Your task to perform on an android device: Clear all items from cart on target. Search for razer blade on target, select the first entry, add it to the cart, then select checkout. Image 0: 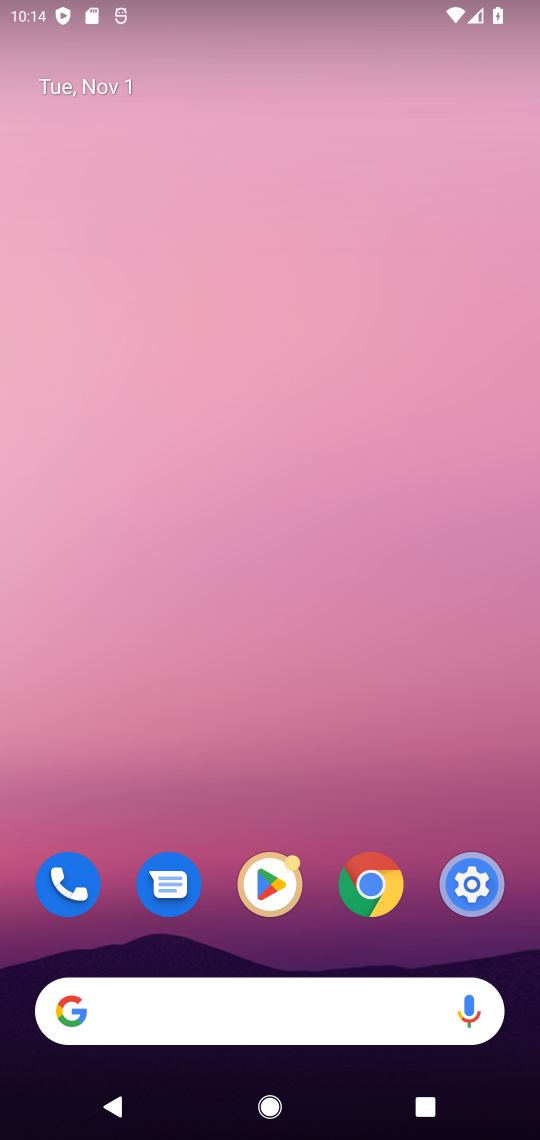
Step 0: click (371, 883)
Your task to perform on an android device: Clear all items from cart on target. Search for razer blade on target, select the first entry, add it to the cart, then select checkout. Image 1: 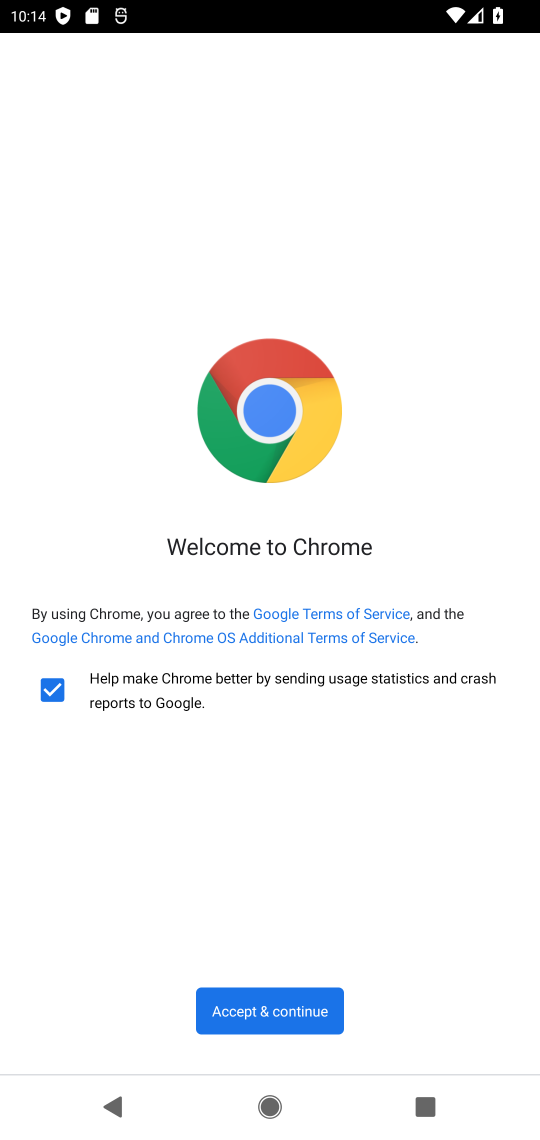
Step 1: click (244, 1006)
Your task to perform on an android device: Clear all items from cart on target. Search for razer blade on target, select the first entry, add it to the cart, then select checkout. Image 2: 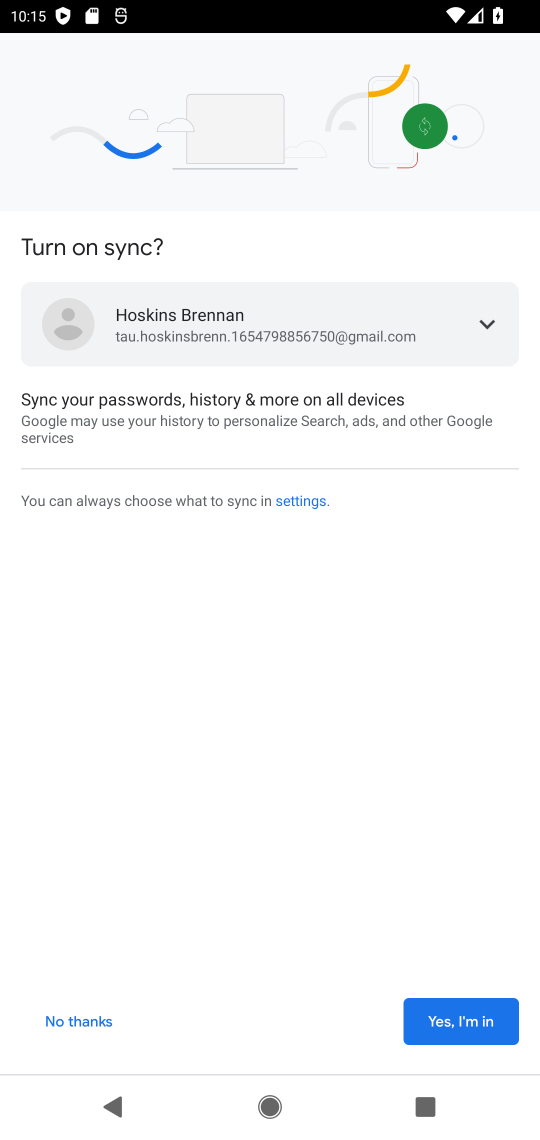
Step 2: click (425, 1028)
Your task to perform on an android device: Clear all items from cart on target. Search for razer blade on target, select the first entry, add it to the cart, then select checkout. Image 3: 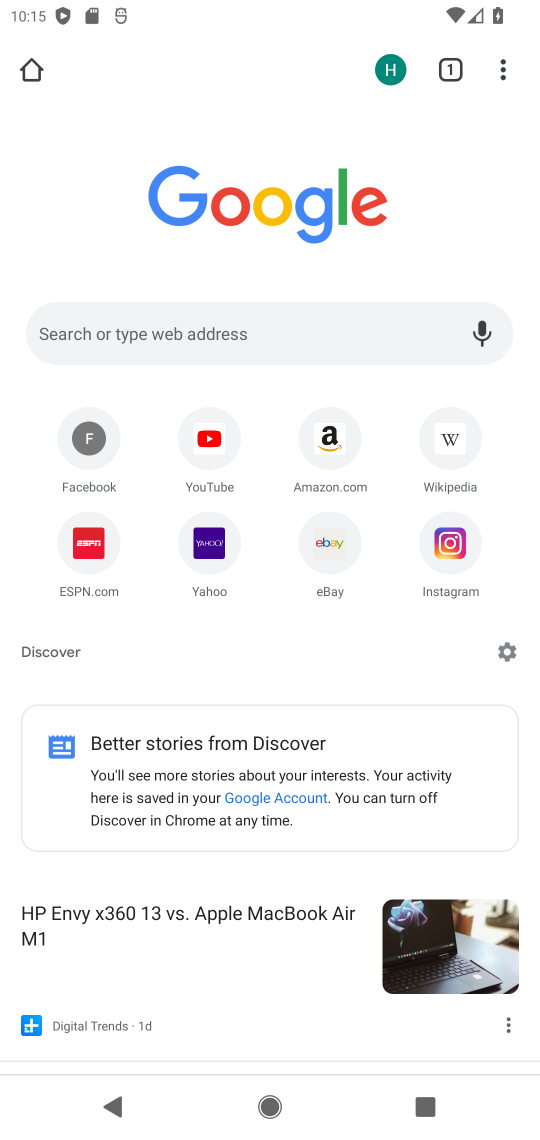
Step 3: click (163, 324)
Your task to perform on an android device: Clear all items from cart on target. Search for razer blade on target, select the first entry, add it to the cart, then select checkout. Image 4: 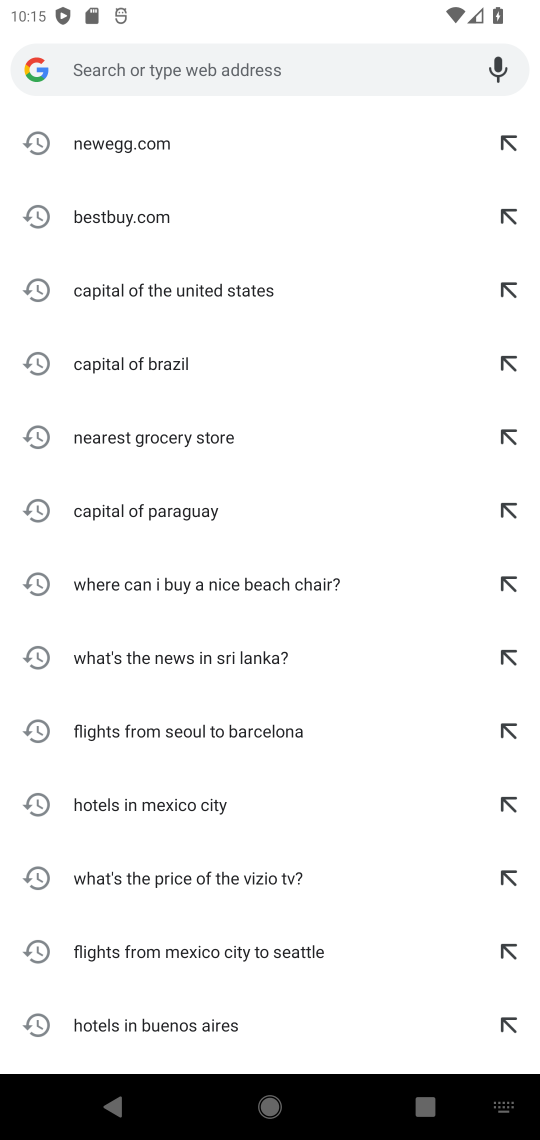
Step 4: type "target.com"
Your task to perform on an android device: Clear all items from cart on target. Search for razer blade on target, select the first entry, add it to the cart, then select checkout. Image 5: 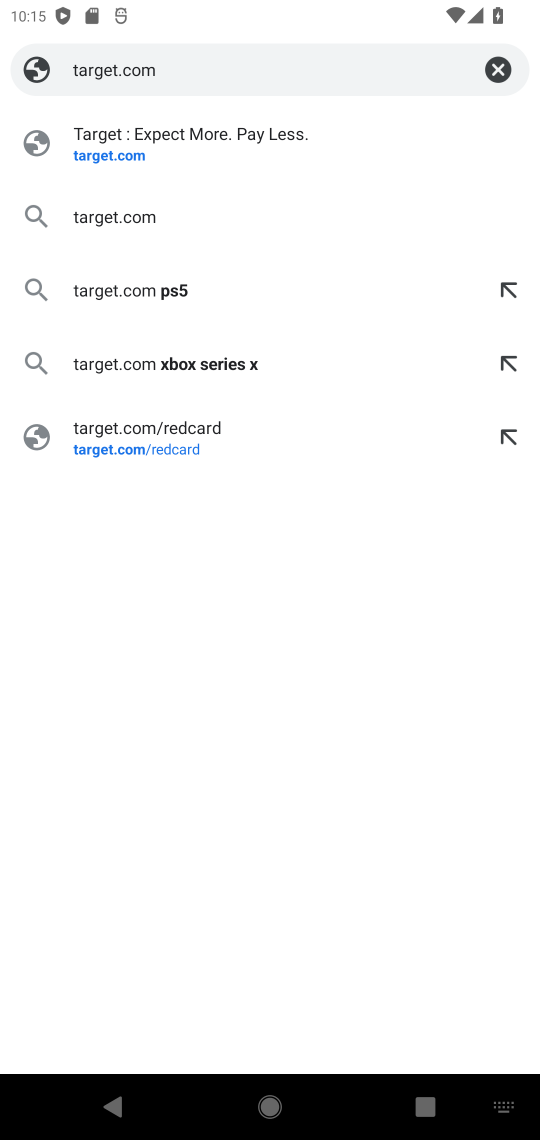
Step 5: click (86, 156)
Your task to perform on an android device: Clear all items from cart on target. Search for razer blade on target, select the first entry, add it to the cart, then select checkout. Image 6: 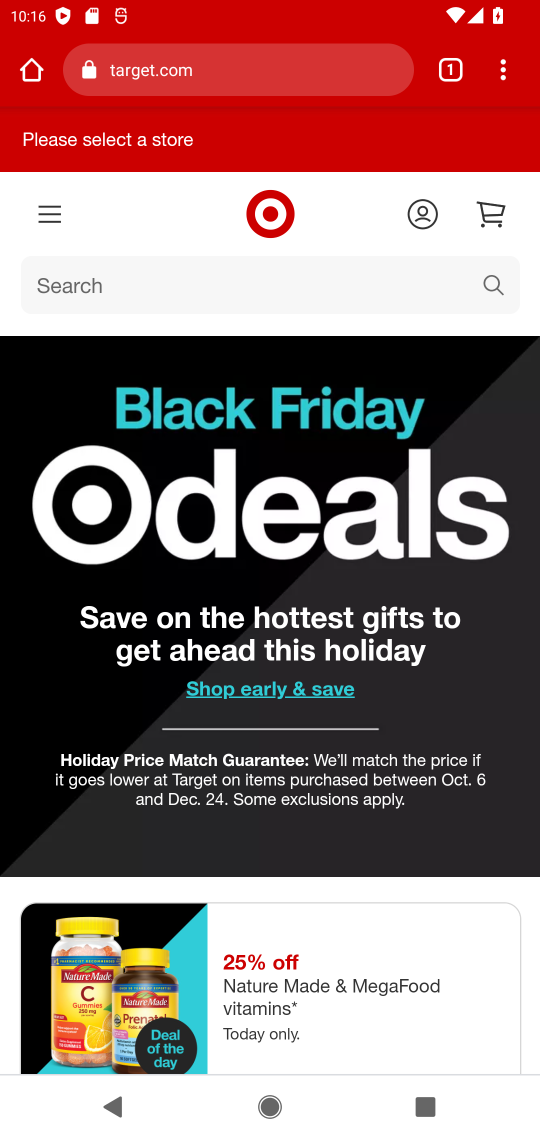
Step 6: click (488, 287)
Your task to perform on an android device: Clear all items from cart on target. Search for razer blade on target, select the first entry, add it to the cart, then select checkout. Image 7: 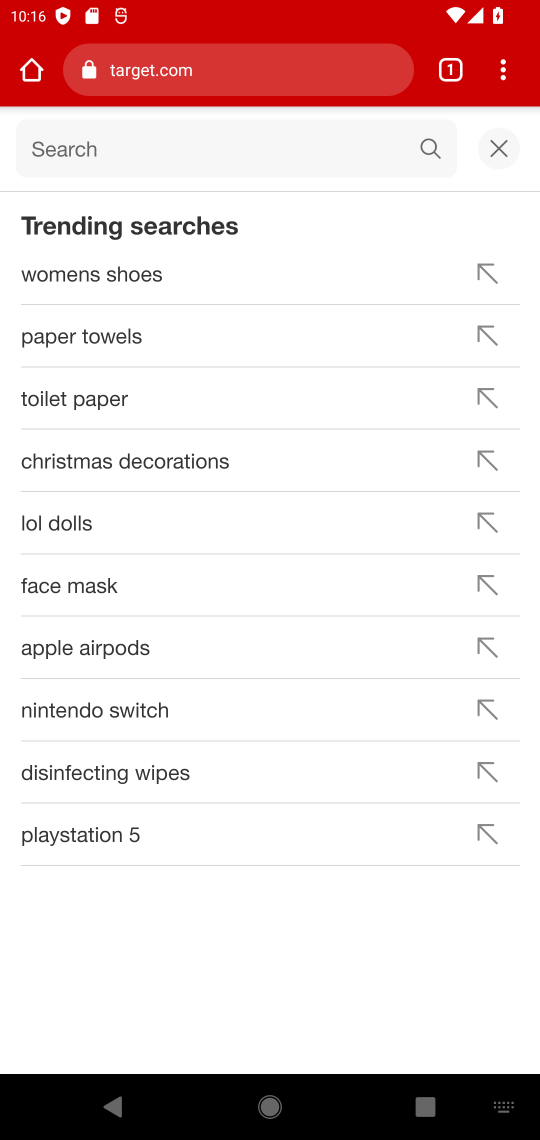
Step 7: type " razer blade"
Your task to perform on an android device: Clear all items from cart on target. Search for razer blade on target, select the first entry, add it to the cart, then select checkout. Image 8: 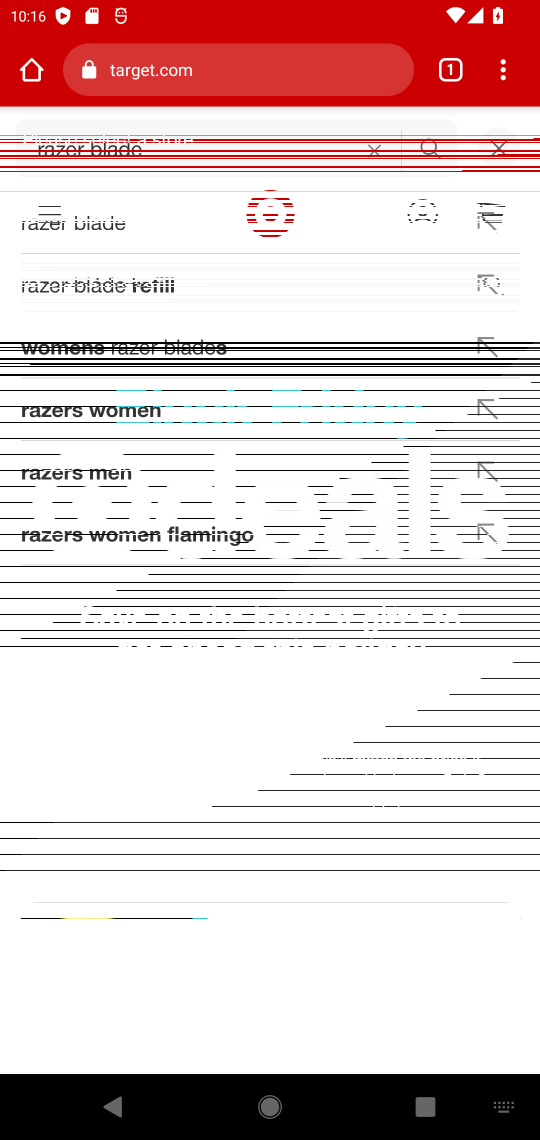
Step 8: click (86, 237)
Your task to perform on an android device: Clear all items from cart on target. Search for razer blade on target, select the first entry, add it to the cart, then select checkout. Image 9: 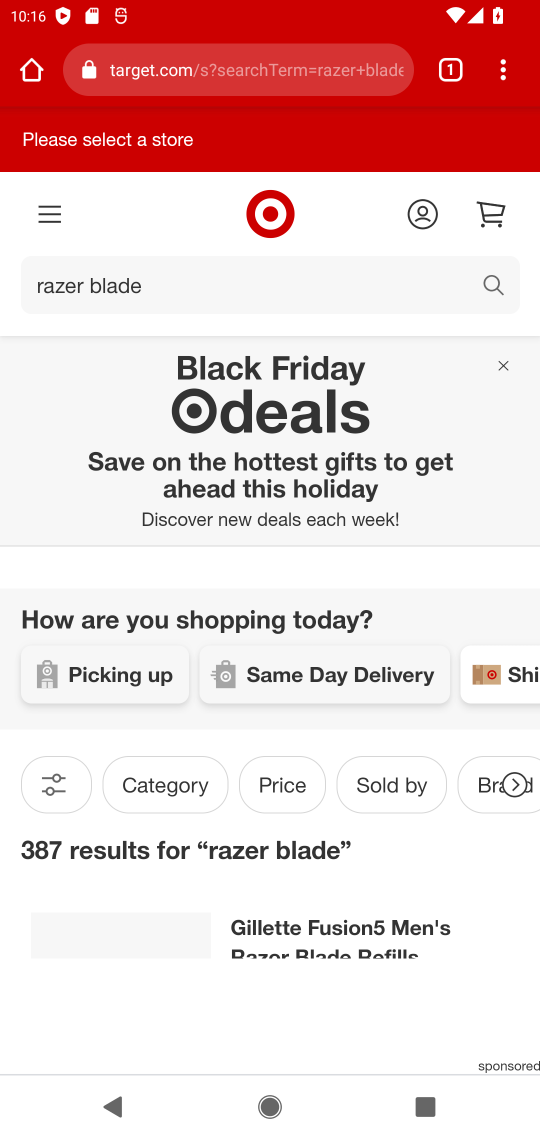
Step 9: drag from (286, 629) to (278, 354)
Your task to perform on an android device: Clear all items from cart on target. Search for razer blade on target, select the first entry, add it to the cart, then select checkout. Image 10: 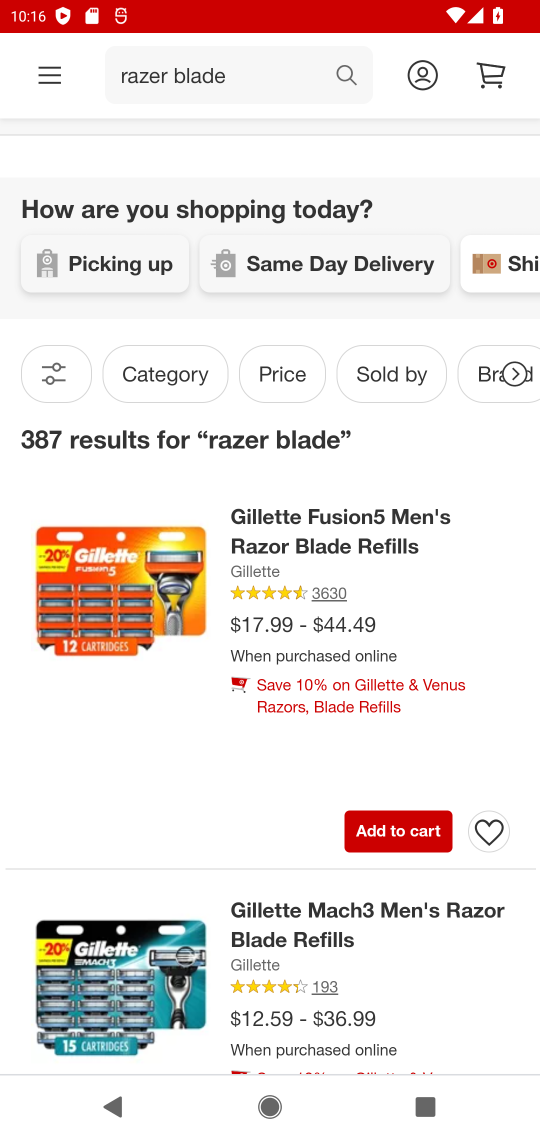
Step 10: click (194, 617)
Your task to perform on an android device: Clear all items from cart on target. Search for razer blade on target, select the first entry, add it to the cart, then select checkout. Image 11: 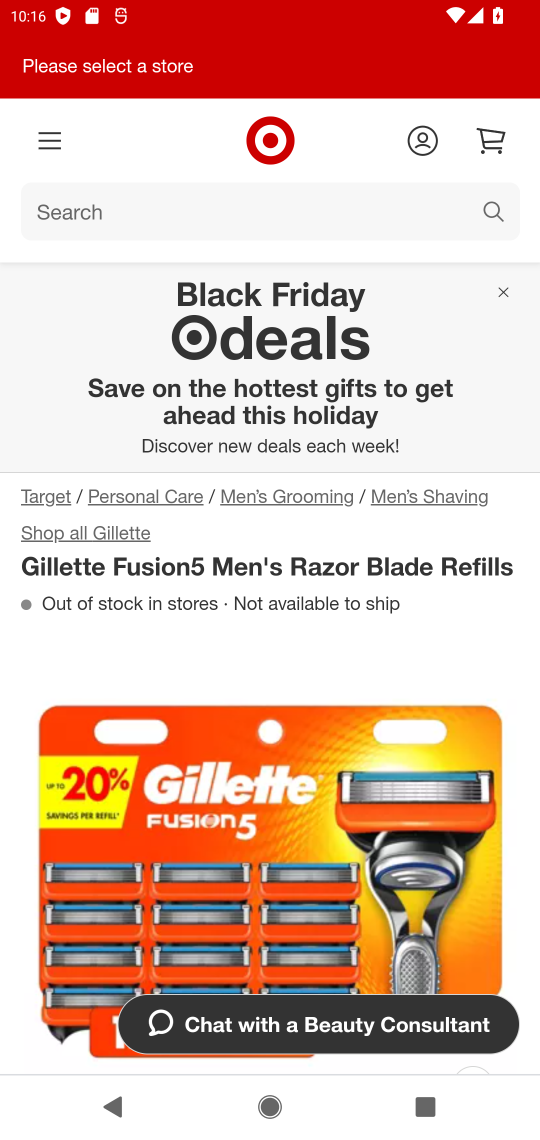
Step 11: drag from (336, 818) to (323, 377)
Your task to perform on an android device: Clear all items from cart on target. Search for razer blade on target, select the first entry, add it to the cart, then select checkout. Image 12: 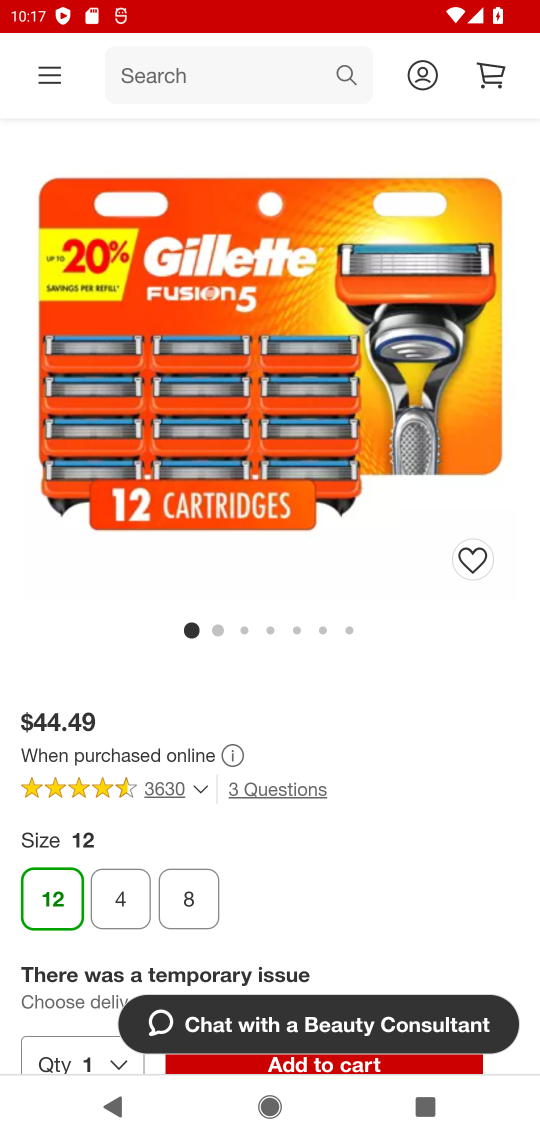
Step 12: drag from (339, 783) to (307, 447)
Your task to perform on an android device: Clear all items from cart on target. Search for razer blade on target, select the first entry, add it to the cart, then select checkout. Image 13: 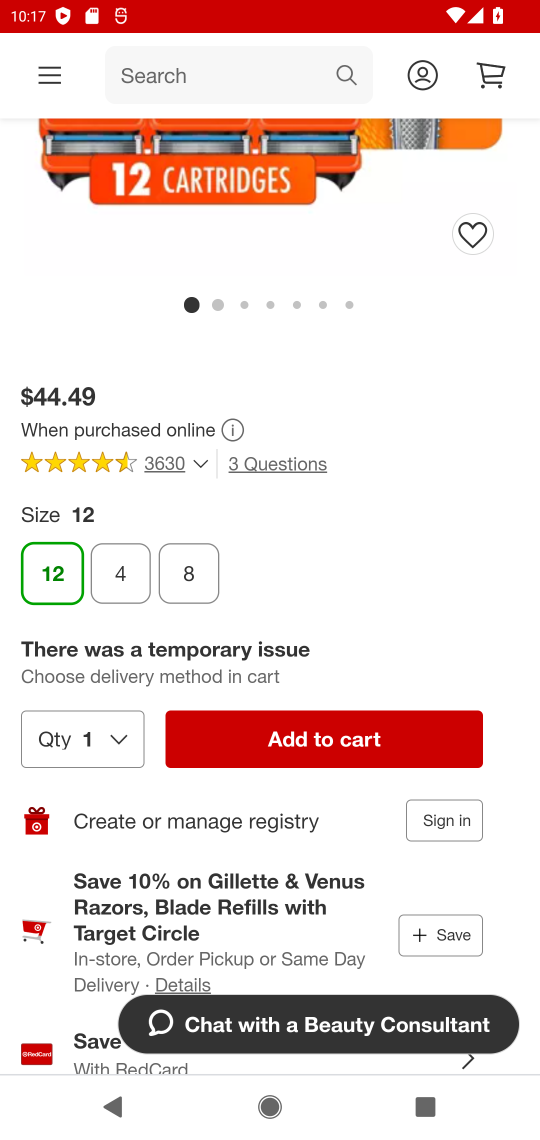
Step 13: click (288, 736)
Your task to perform on an android device: Clear all items from cart on target. Search for razer blade on target, select the first entry, add it to the cart, then select checkout. Image 14: 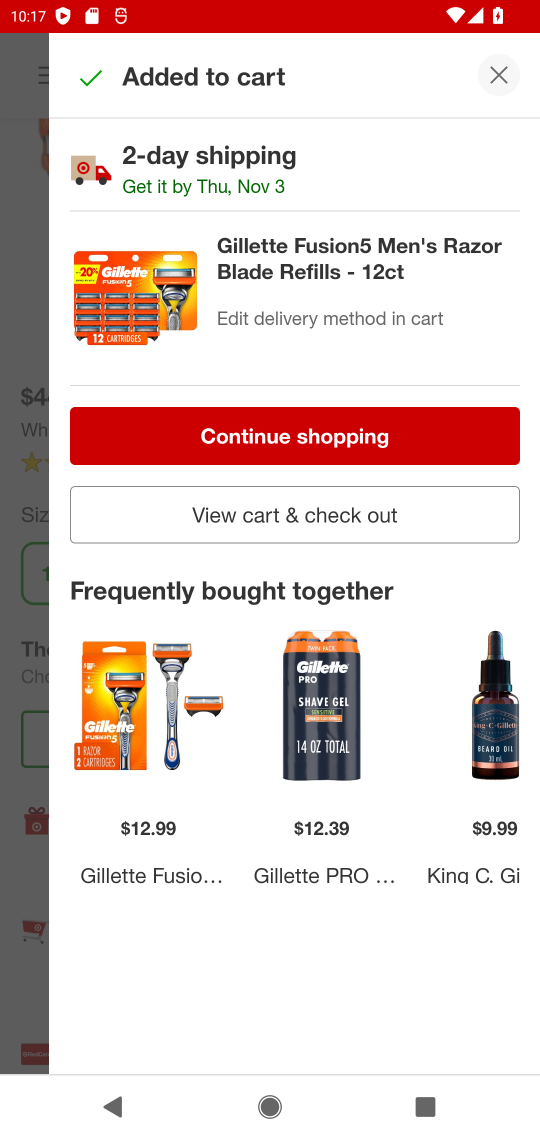
Step 14: click (261, 514)
Your task to perform on an android device: Clear all items from cart on target. Search for razer blade on target, select the first entry, add it to the cart, then select checkout. Image 15: 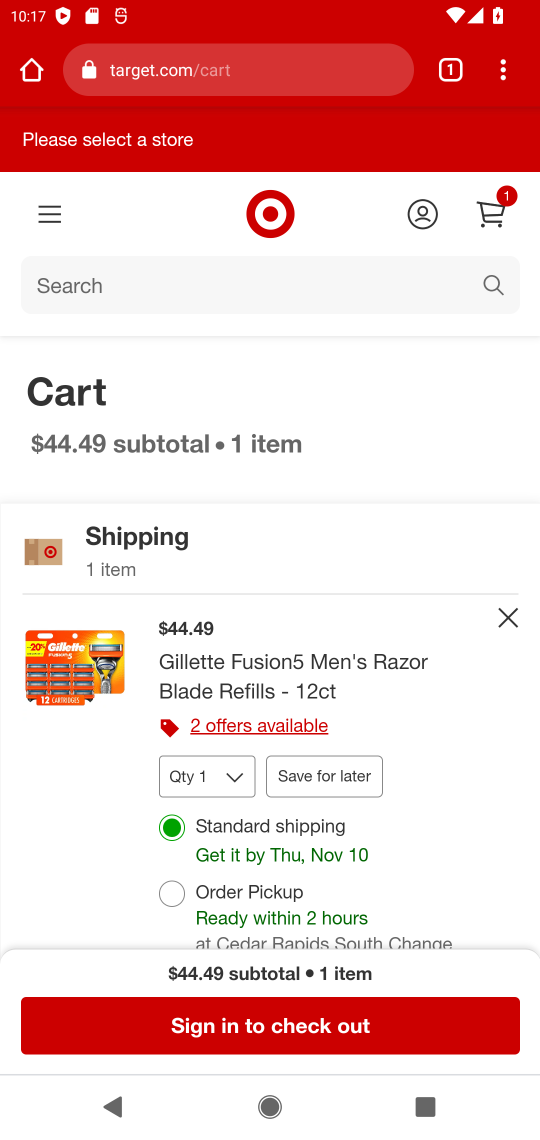
Step 15: click (249, 1028)
Your task to perform on an android device: Clear all items from cart on target. Search for razer blade on target, select the first entry, add it to the cart, then select checkout. Image 16: 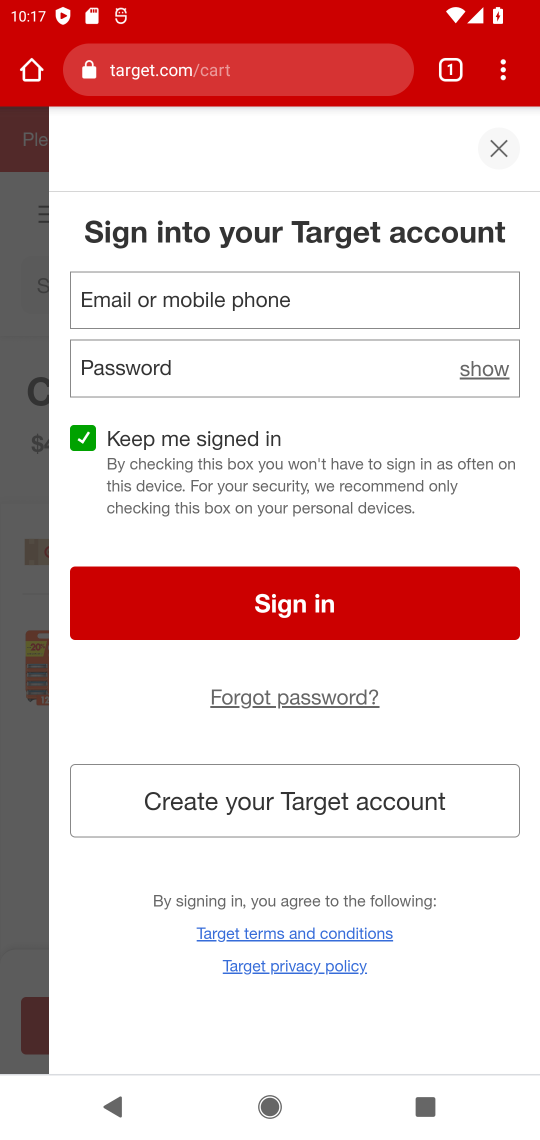
Step 16: task complete